Your task to perform on an android device: What is the recent news? Image 0: 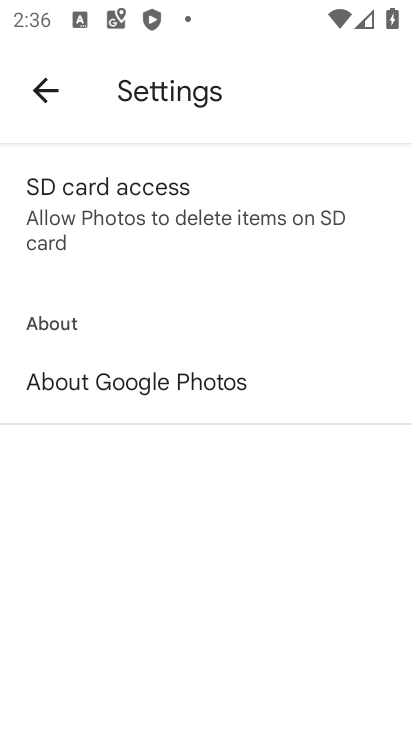
Step 0: press home button
Your task to perform on an android device: What is the recent news? Image 1: 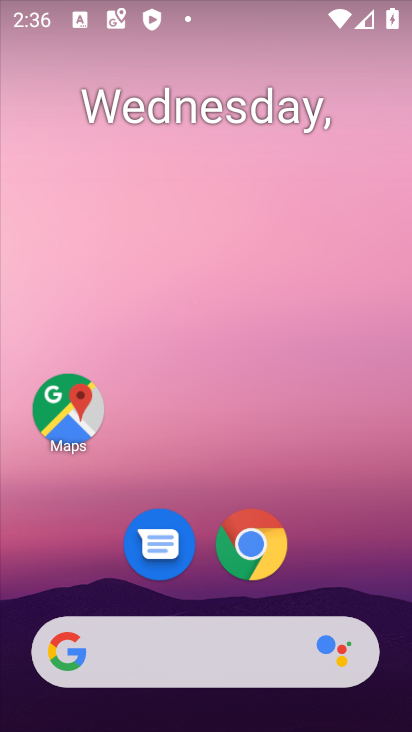
Step 1: task complete